Your task to perform on an android device: turn off location Image 0: 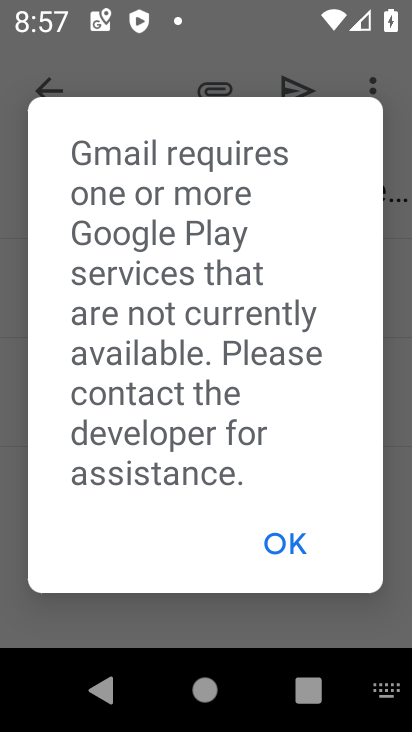
Step 0: press home button
Your task to perform on an android device: turn off location Image 1: 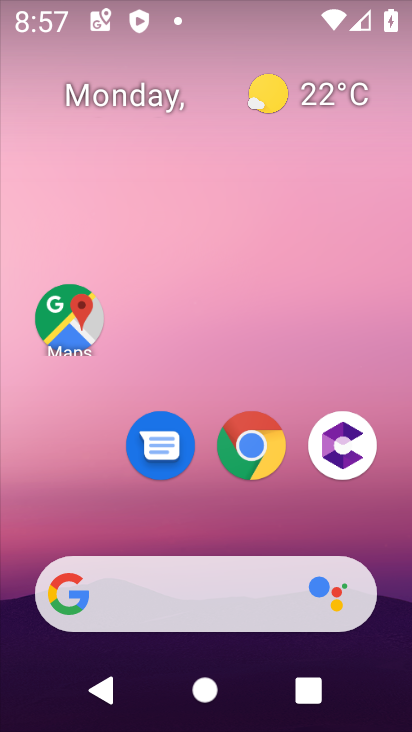
Step 1: drag from (333, 370) to (335, 58)
Your task to perform on an android device: turn off location Image 2: 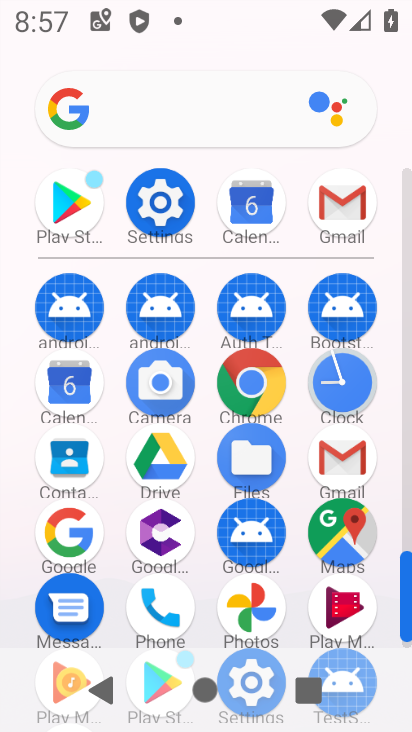
Step 2: click (140, 190)
Your task to perform on an android device: turn off location Image 3: 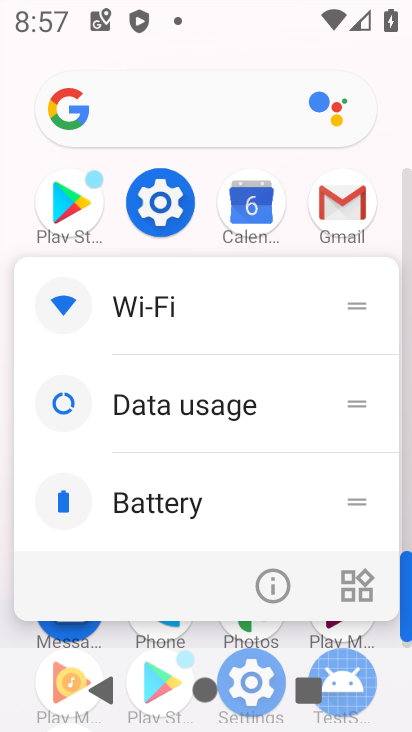
Step 3: click (159, 194)
Your task to perform on an android device: turn off location Image 4: 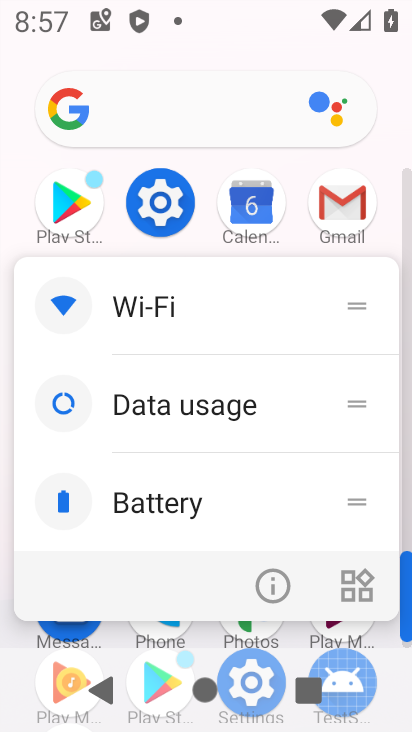
Step 4: click (159, 194)
Your task to perform on an android device: turn off location Image 5: 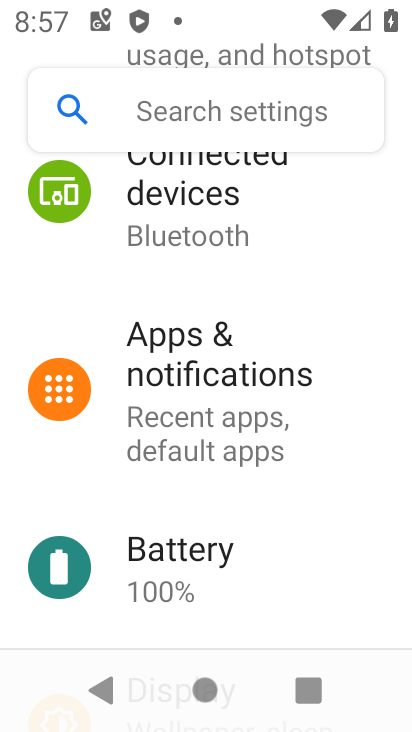
Step 5: drag from (327, 239) to (293, 530)
Your task to perform on an android device: turn off location Image 6: 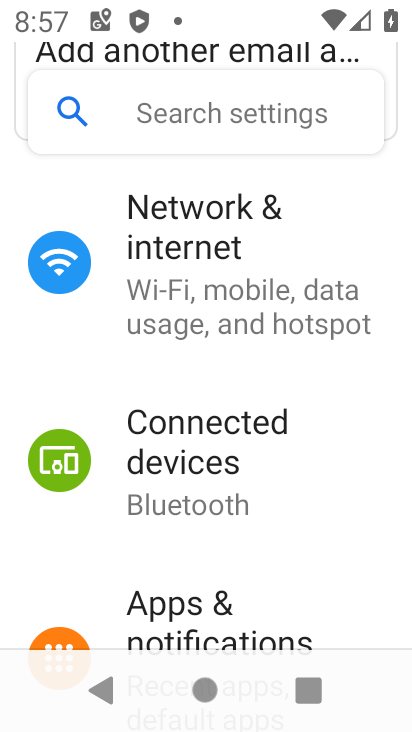
Step 6: drag from (77, 543) to (157, 6)
Your task to perform on an android device: turn off location Image 7: 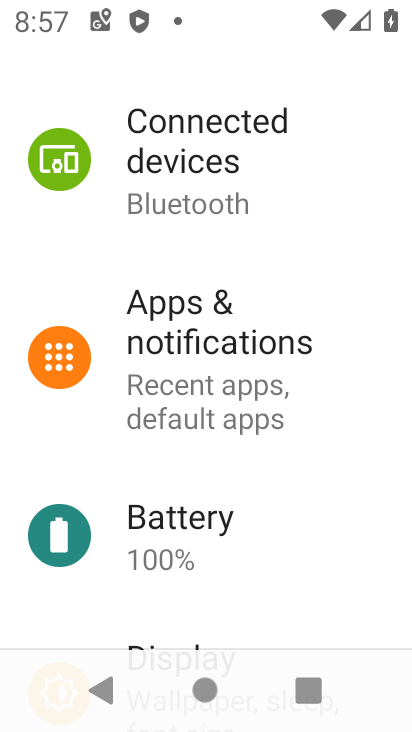
Step 7: drag from (79, 591) to (169, 12)
Your task to perform on an android device: turn off location Image 8: 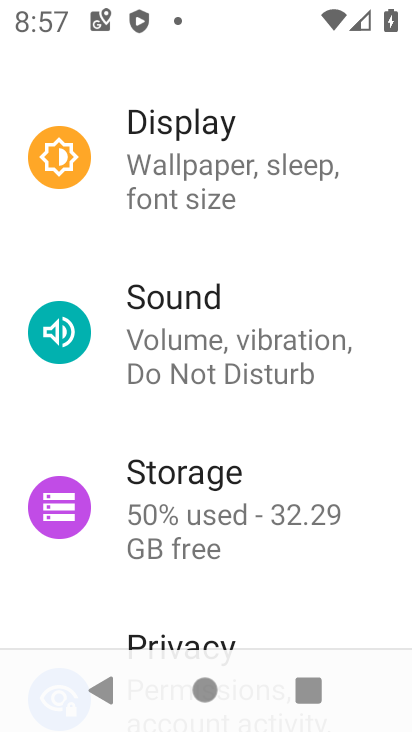
Step 8: drag from (60, 595) to (173, 108)
Your task to perform on an android device: turn off location Image 9: 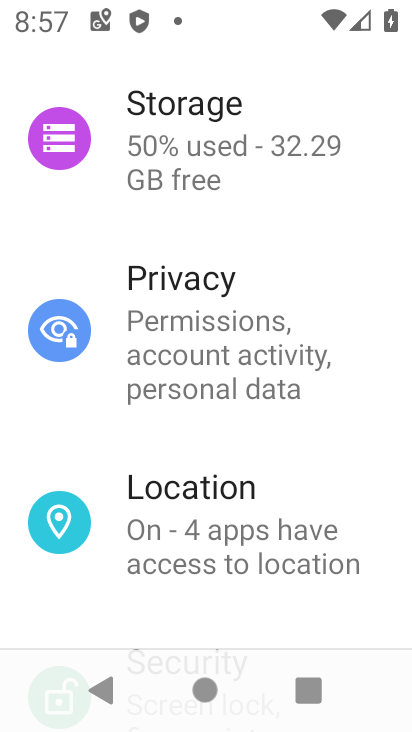
Step 9: click (201, 503)
Your task to perform on an android device: turn off location Image 10: 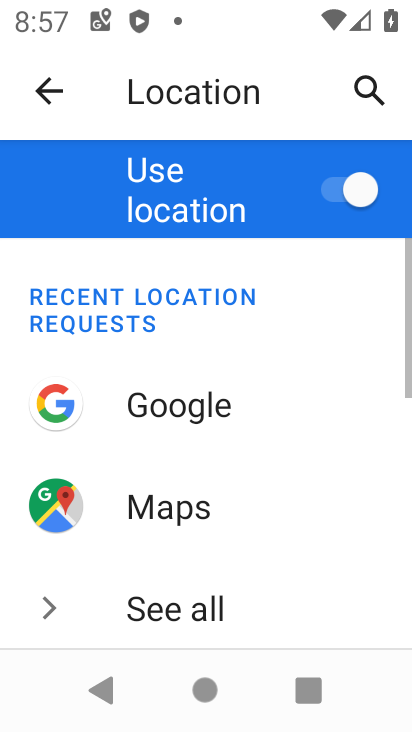
Step 10: click (334, 195)
Your task to perform on an android device: turn off location Image 11: 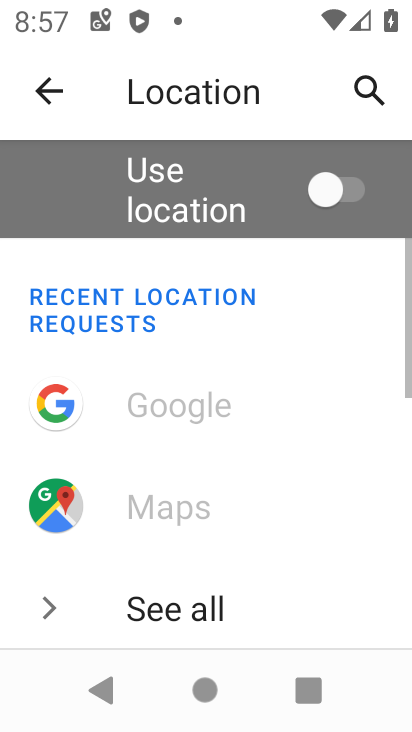
Step 11: task complete